Your task to perform on an android device: Turn on the flashlight Image 0: 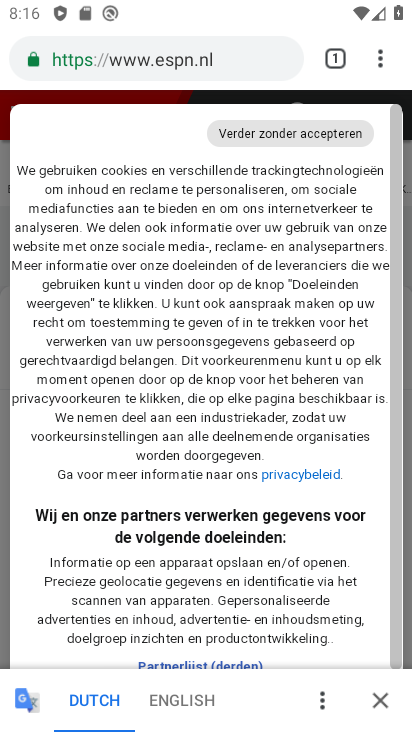
Step 0: press home button
Your task to perform on an android device: Turn on the flashlight Image 1: 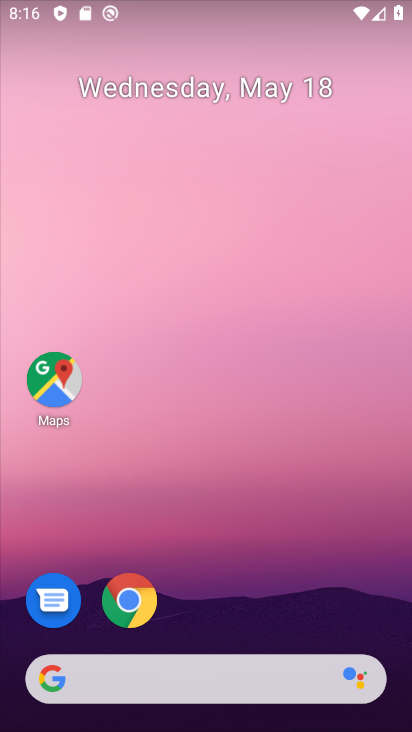
Step 1: drag from (77, 513) to (202, 163)
Your task to perform on an android device: Turn on the flashlight Image 2: 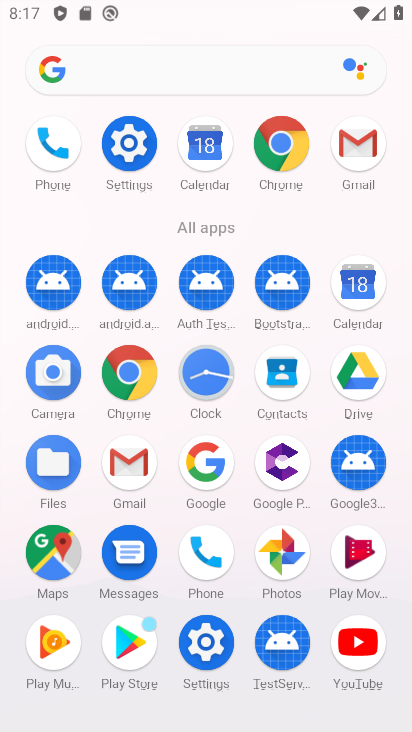
Step 2: click (128, 151)
Your task to perform on an android device: Turn on the flashlight Image 3: 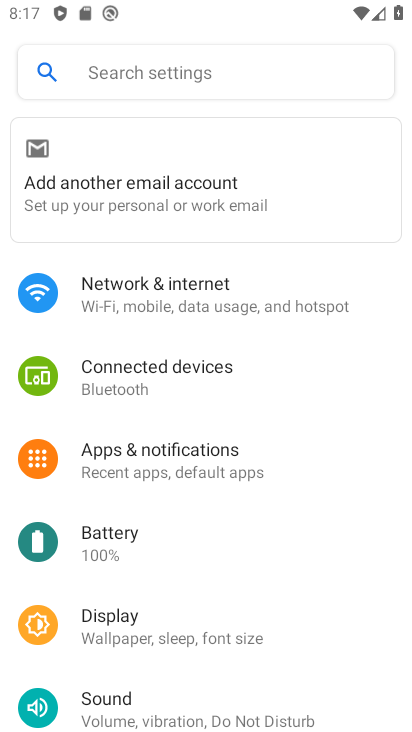
Step 3: click (140, 470)
Your task to perform on an android device: Turn on the flashlight Image 4: 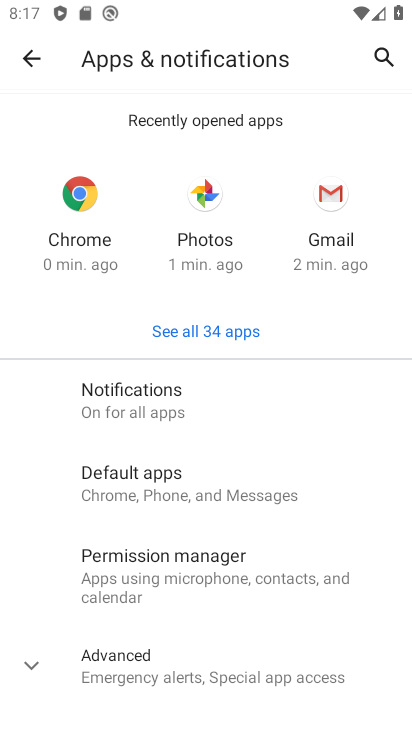
Step 4: task complete